Your task to perform on an android device: open app "Adobe Express: Graphic Design" Image 0: 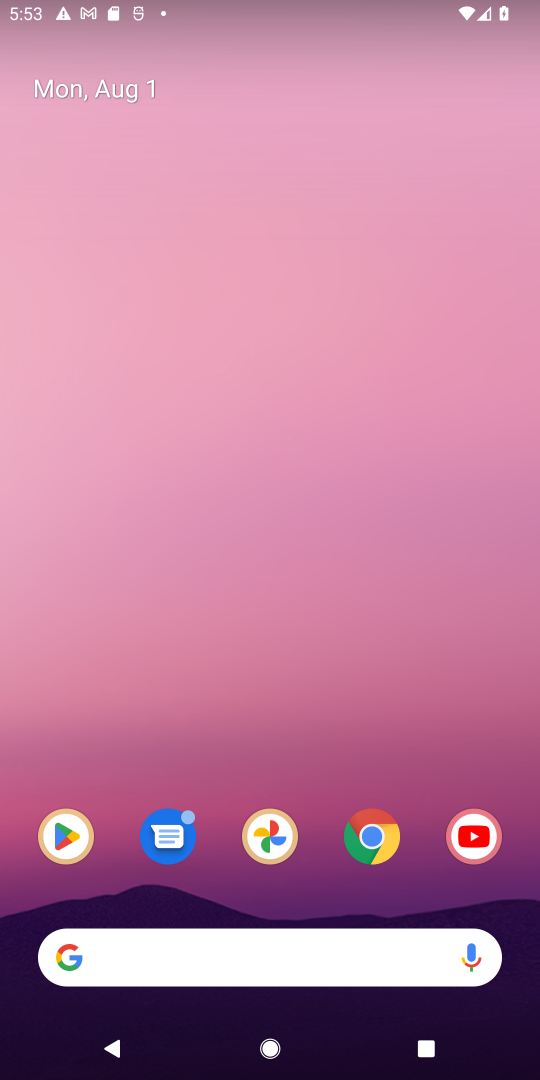
Step 0: press home button
Your task to perform on an android device: open app "Adobe Express: Graphic Design" Image 1: 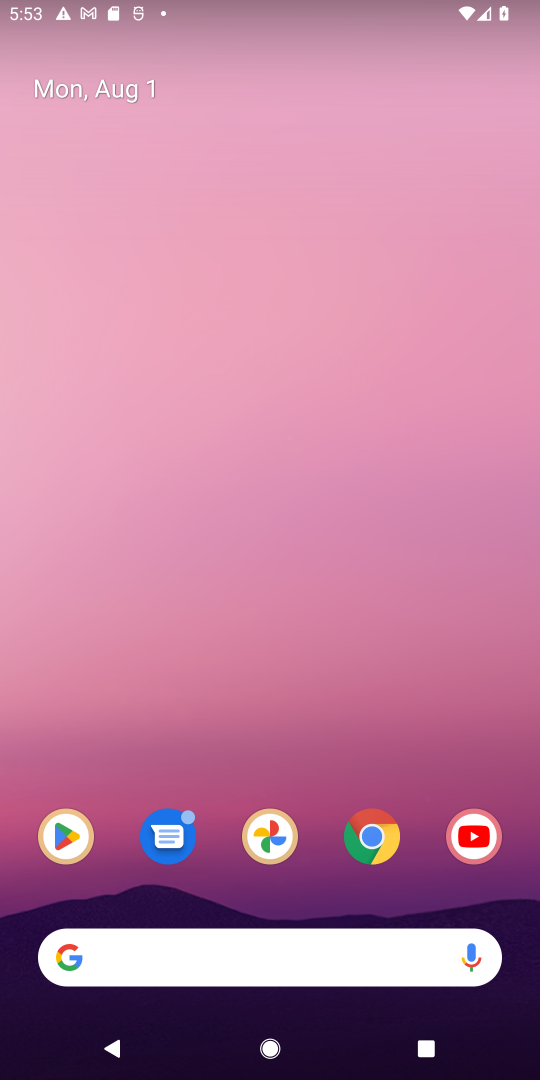
Step 1: click (67, 836)
Your task to perform on an android device: open app "Adobe Express: Graphic Design" Image 2: 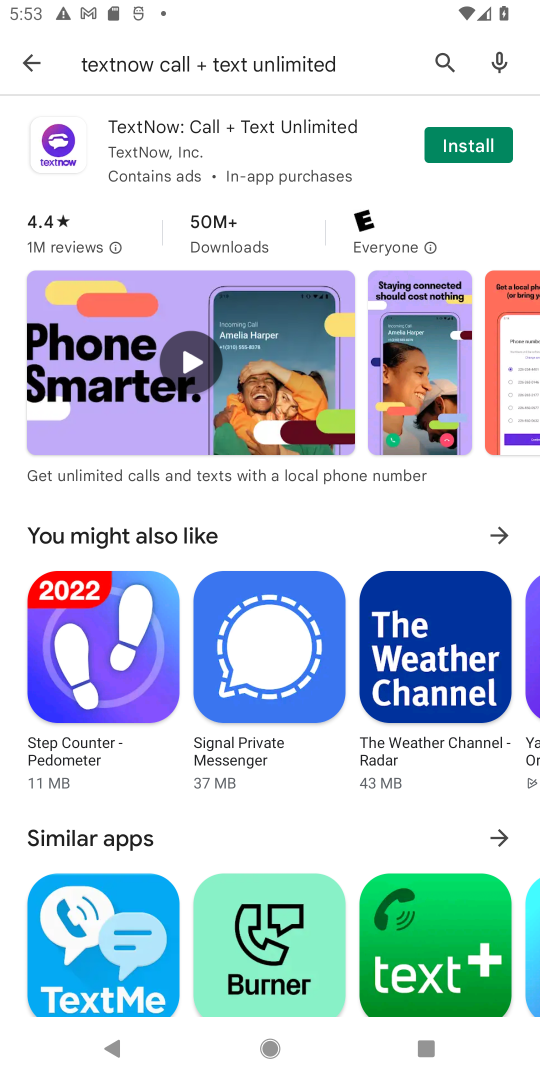
Step 2: click (443, 59)
Your task to perform on an android device: open app "Adobe Express: Graphic Design" Image 3: 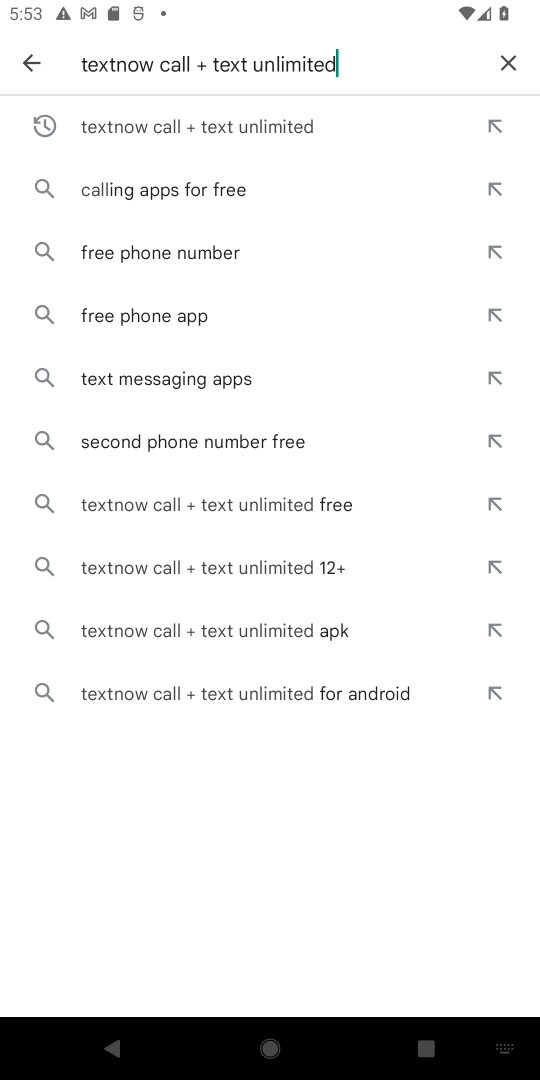
Step 3: click (502, 54)
Your task to perform on an android device: open app "Adobe Express: Graphic Design" Image 4: 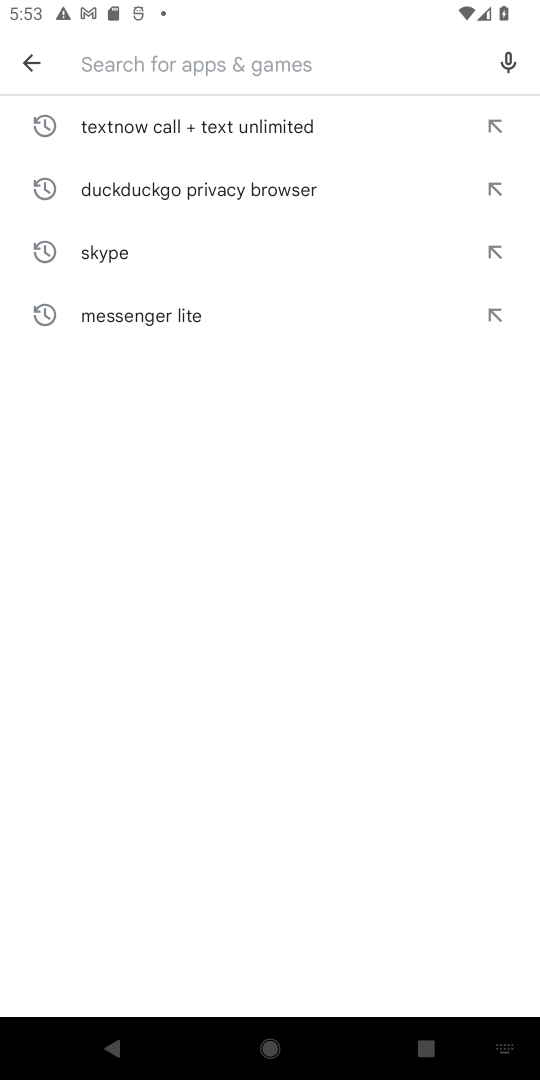
Step 4: type "Adobe Express: Graphic Design"
Your task to perform on an android device: open app "Adobe Express: Graphic Design" Image 5: 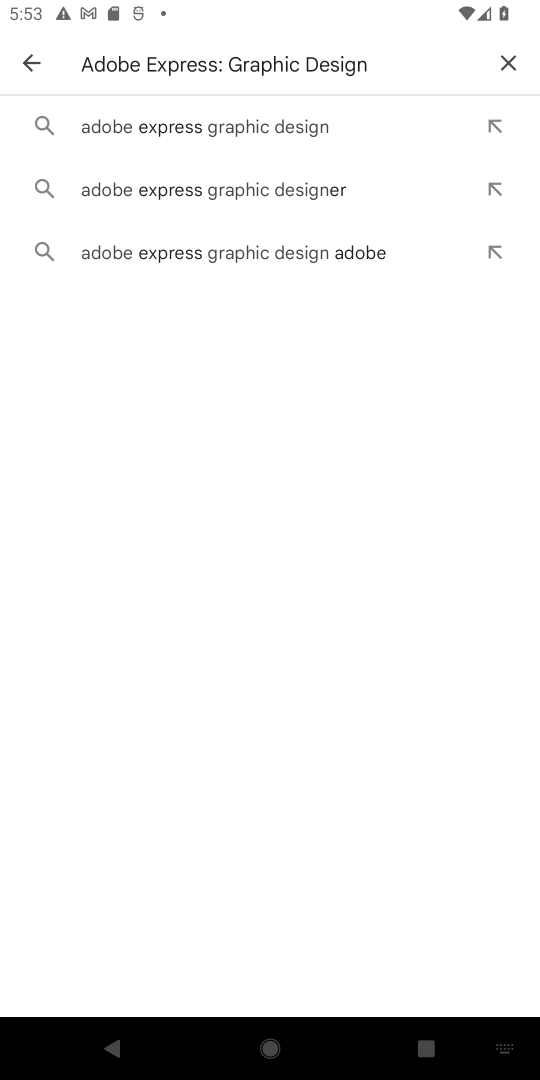
Step 5: click (149, 128)
Your task to perform on an android device: open app "Adobe Express: Graphic Design" Image 6: 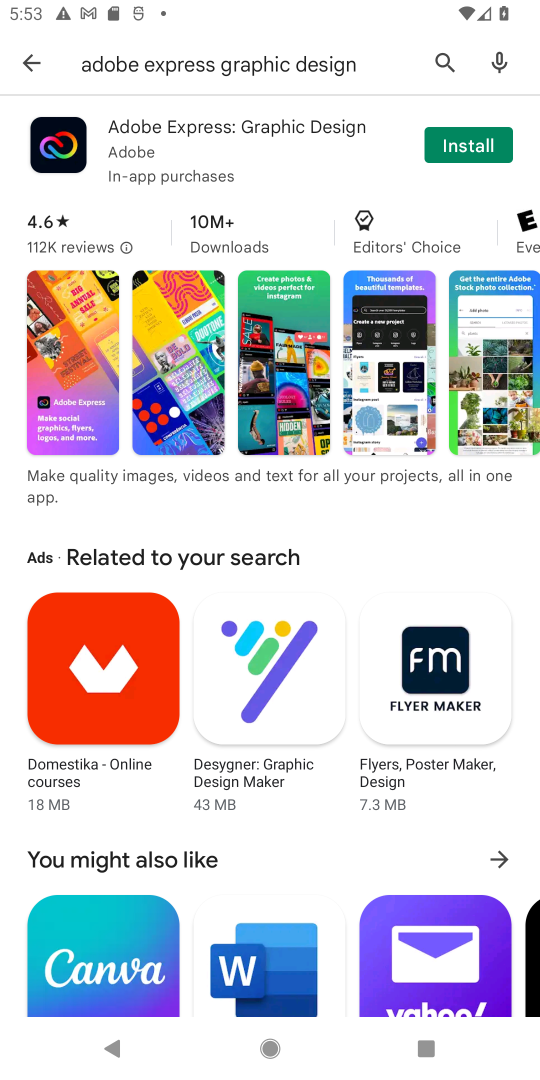
Step 6: task complete